Your task to perform on an android device: Search for pizza restaurants on Maps Image 0: 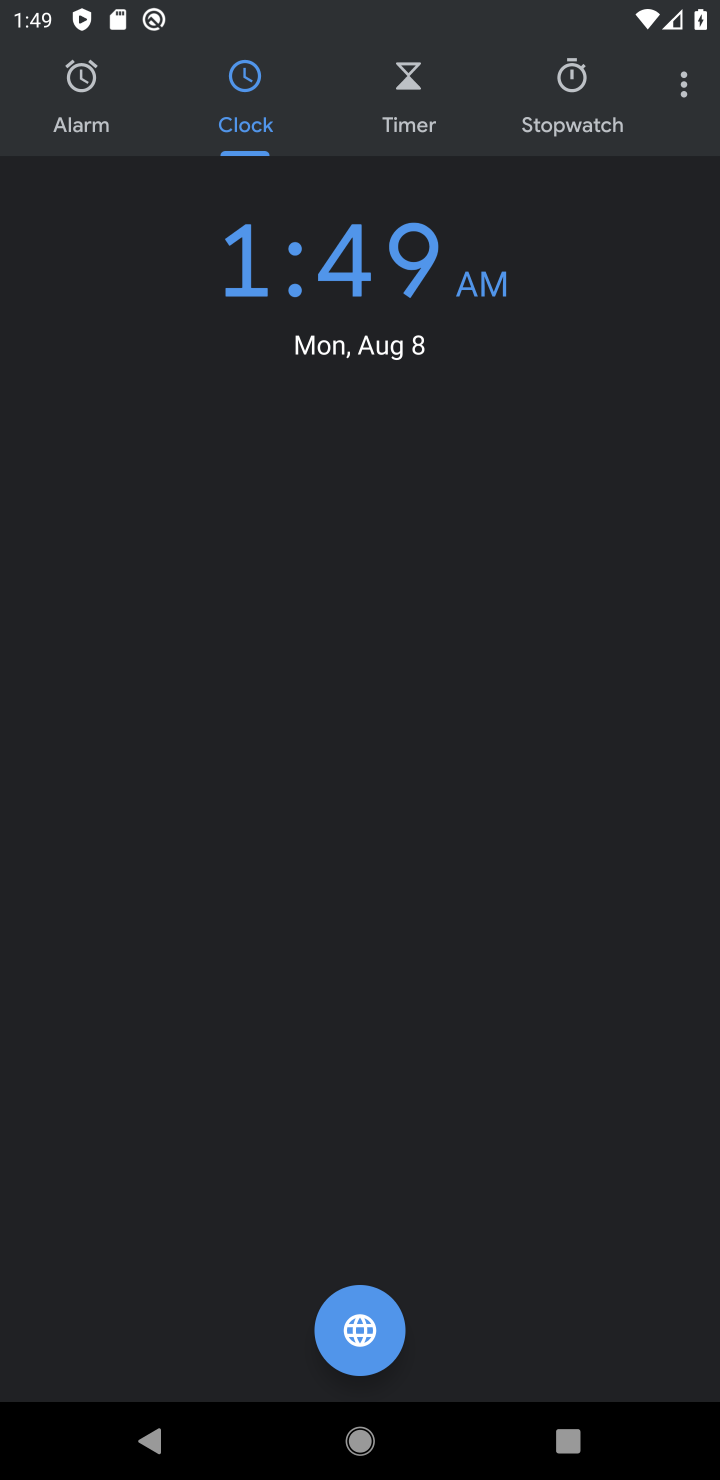
Step 0: press home button
Your task to perform on an android device: Search for pizza restaurants on Maps Image 1: 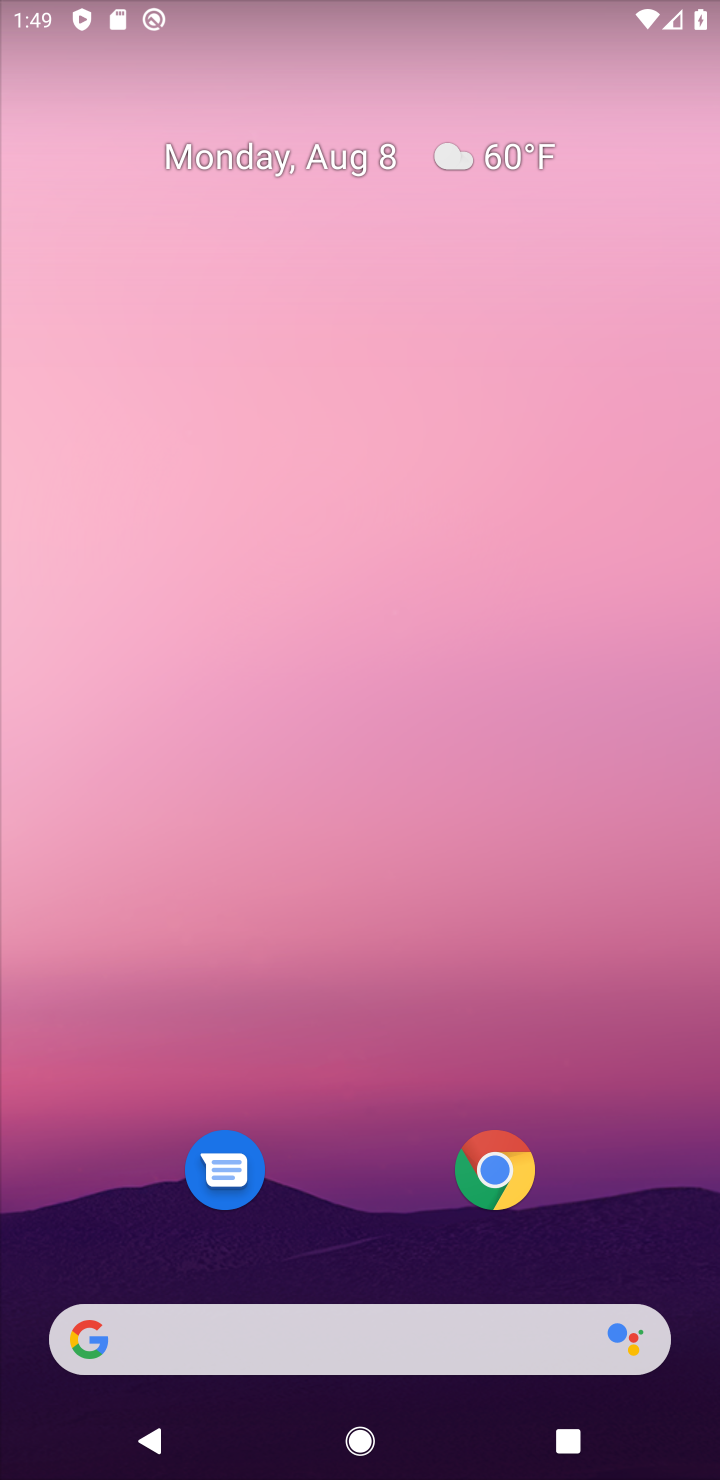
Step 1: drag from (46, 1403) to (272, 393)
Your task to perform on an android device: Search for pizza restaurants on Maps Image 2: 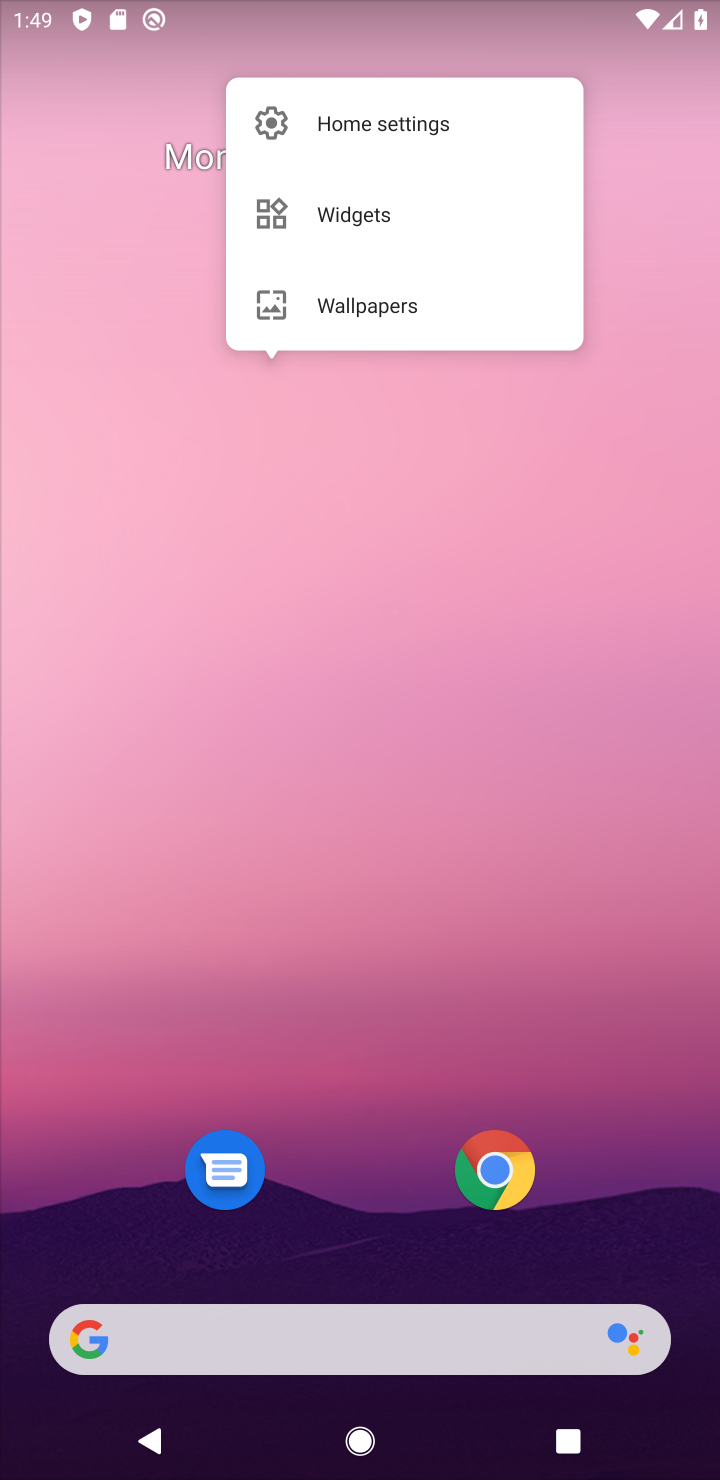
Step 2: drag from (97, 920) to (280, 188)
Your task to perform on an android device: Search for pizza restaurants on Maps Image 3: 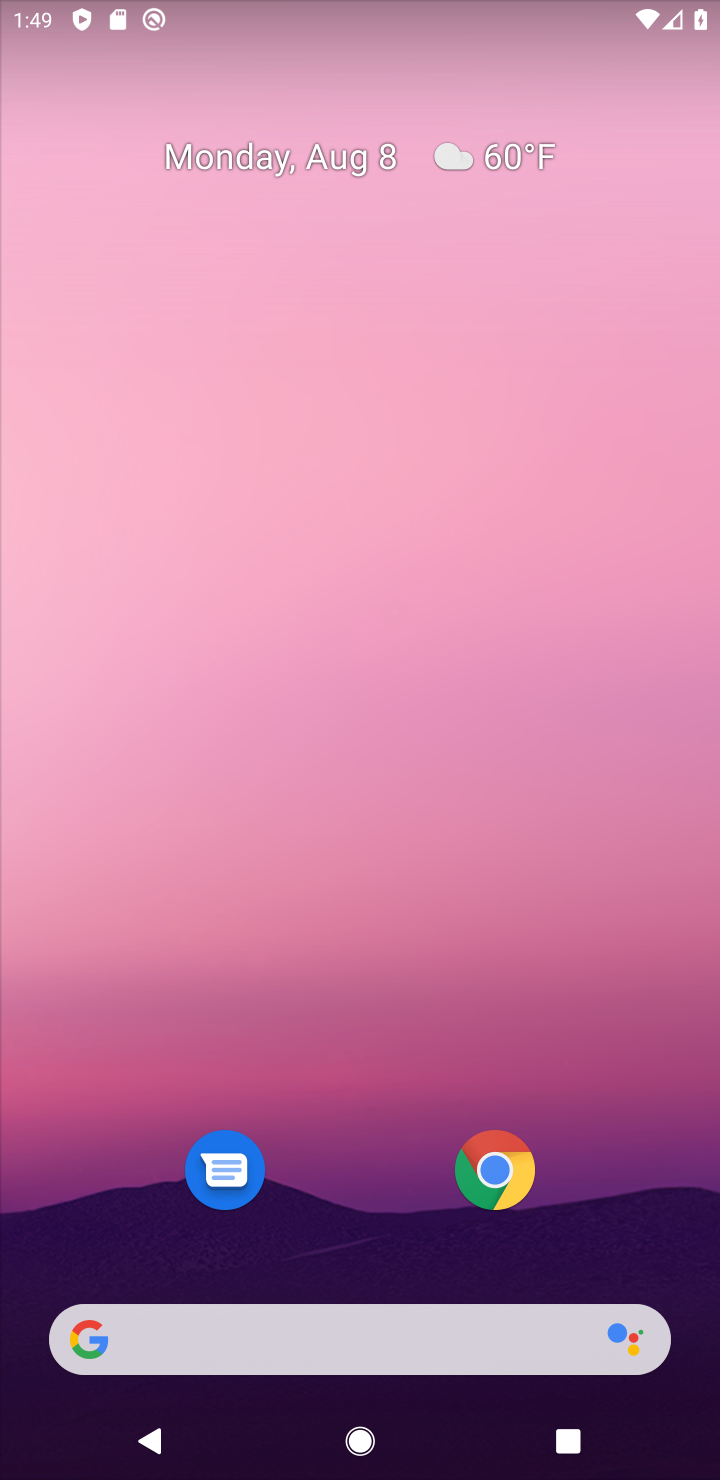
Step 3: click (282, 644)
Your task to perform on an android device: Search for pizza restaurants on Maps Image 4: 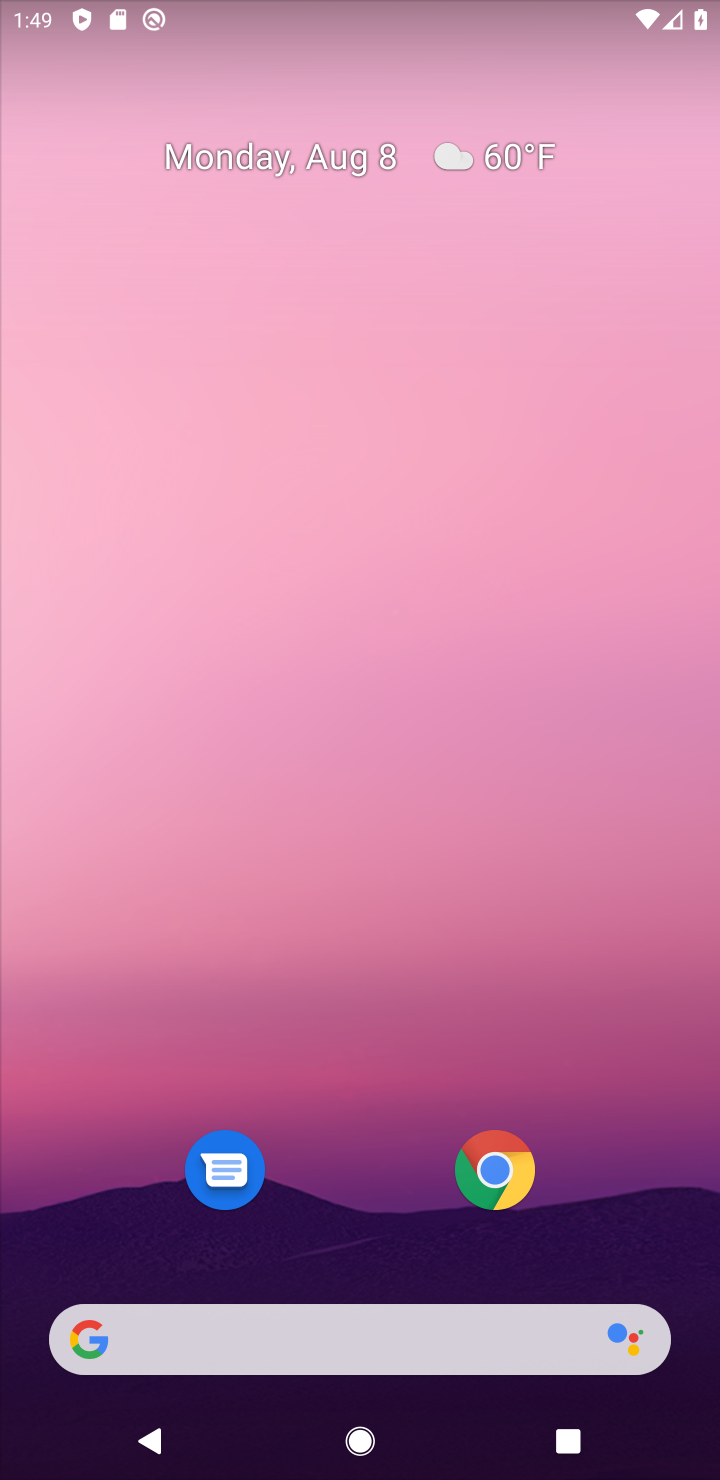
Step 4: drag from (45, 1388) to (333, 80)
Your task to perform on an android device: Search for pizza restaurants on Maps Image 5: 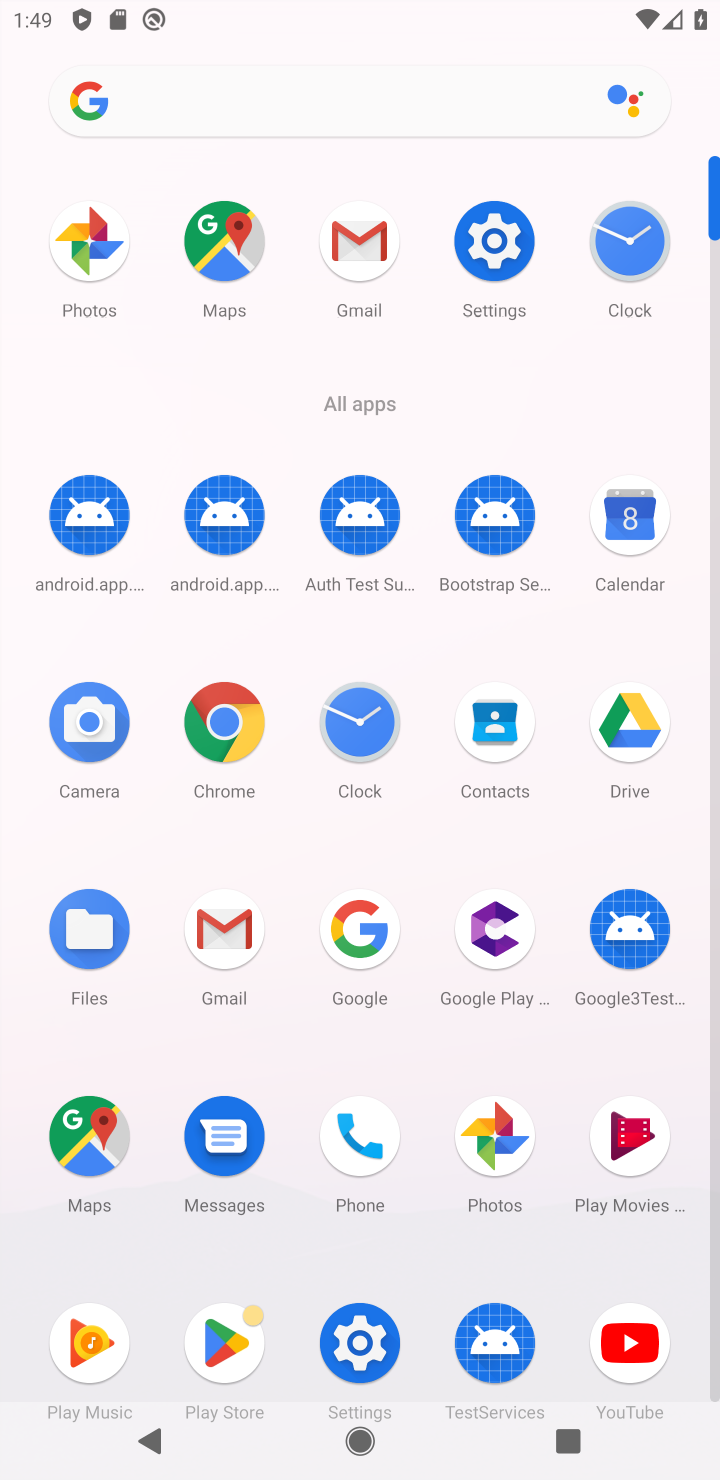
Step 5: click (94, 1170)
Your task to perform on an android device: Search for pizza restaurants on Maps Image 6: 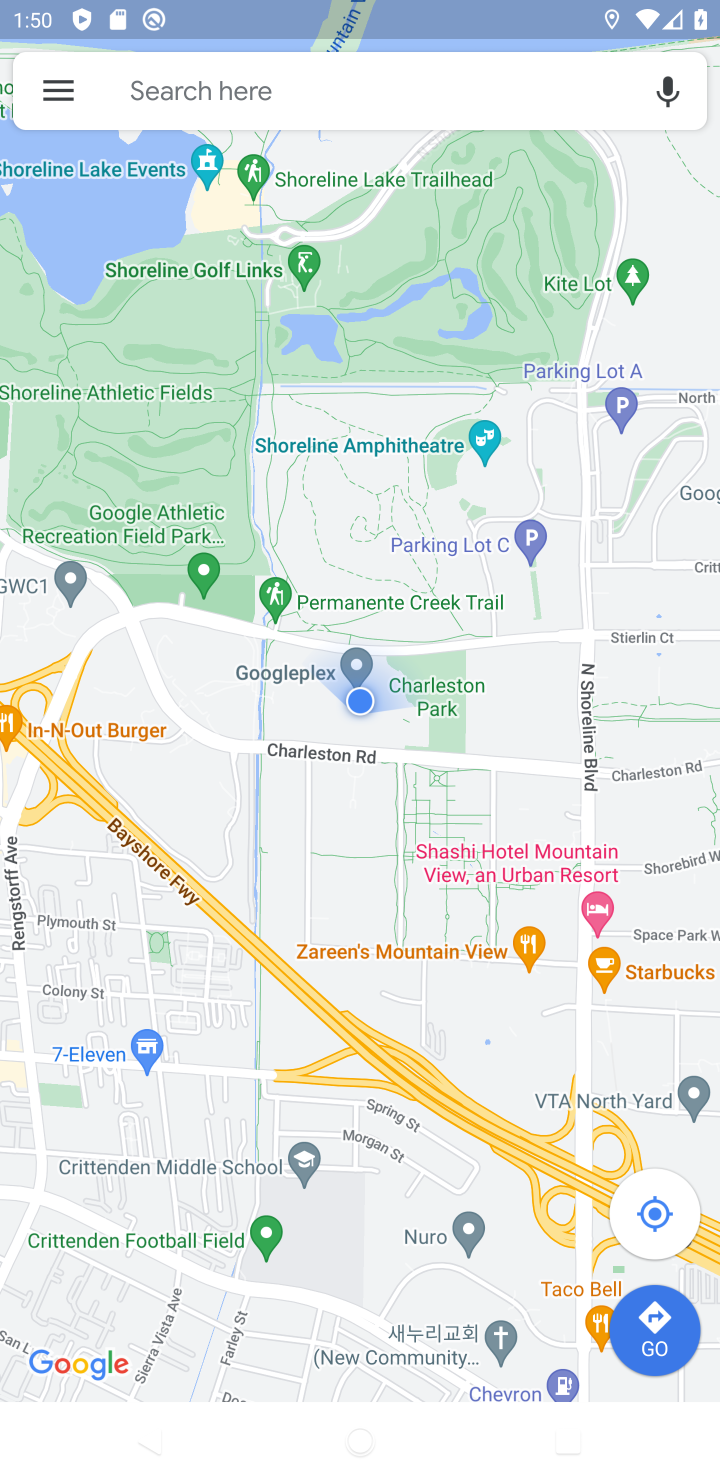
Step 6: click (183, 101)
Your task to perform on an android device: Search for pizza restaurants on Maps Image 7: 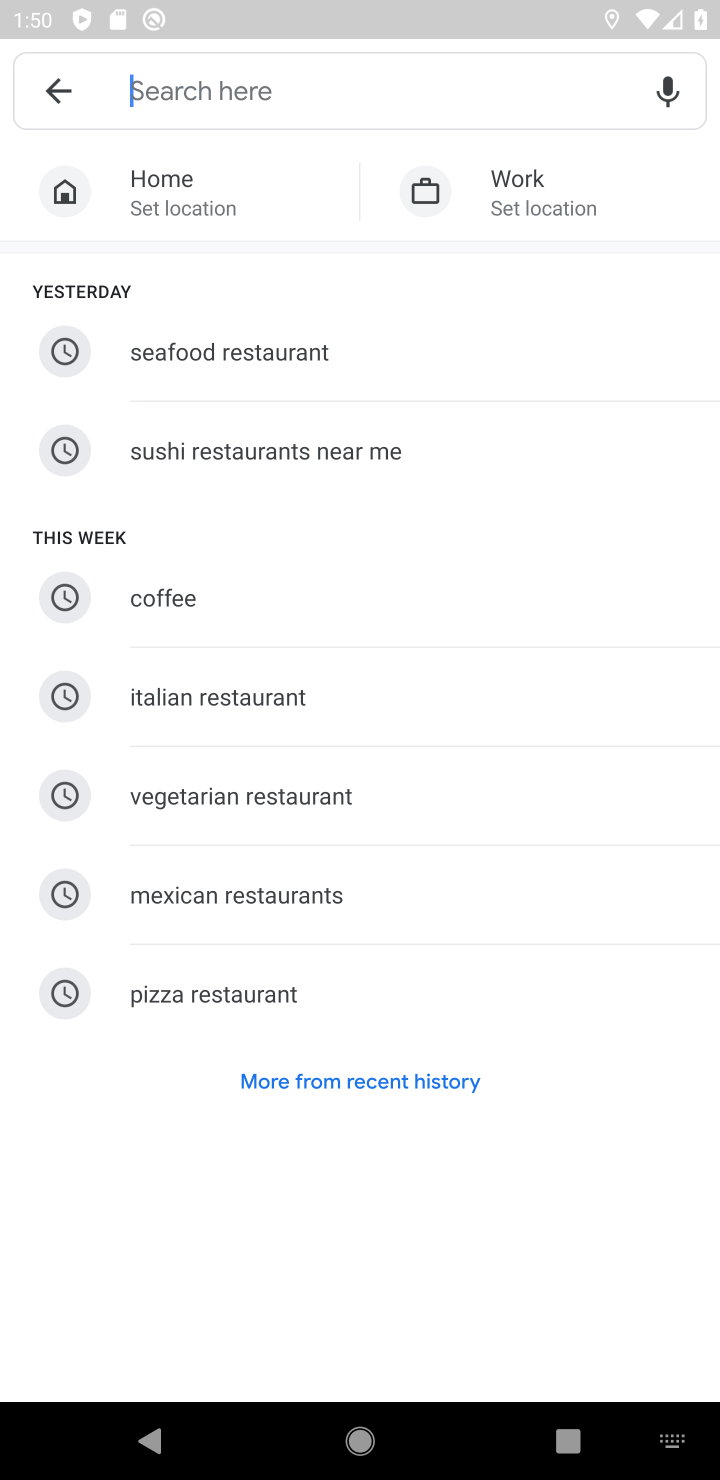
Step 7: click (196, 987)
Your task to perform on an android device: Search for pizza restaurants on Maps Image 8: 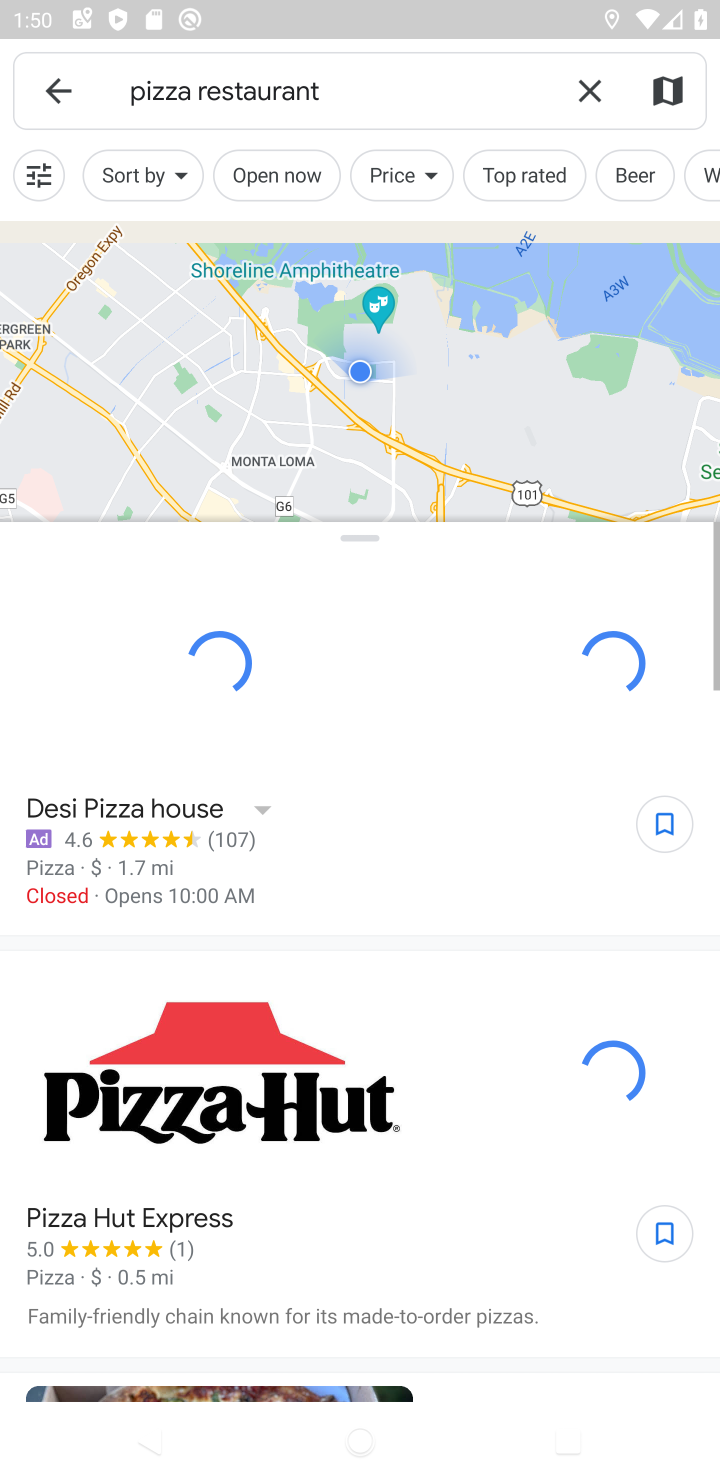
Step 8: task complete